Your task to perform on an android device: Open location settings Image 0: 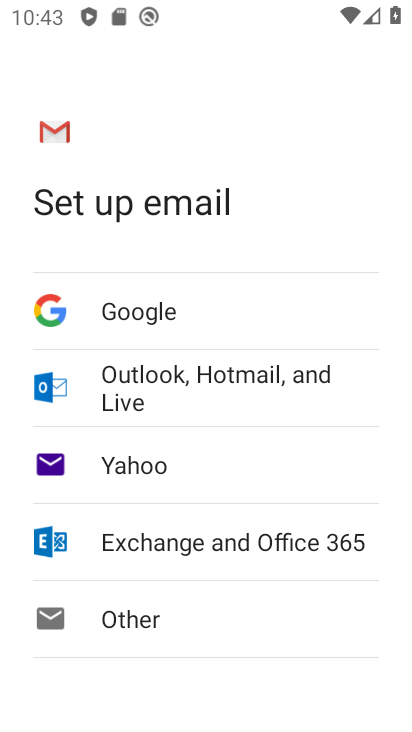
Step 0: press home button
Your task to perform on an android device: Open location settings Image 1: 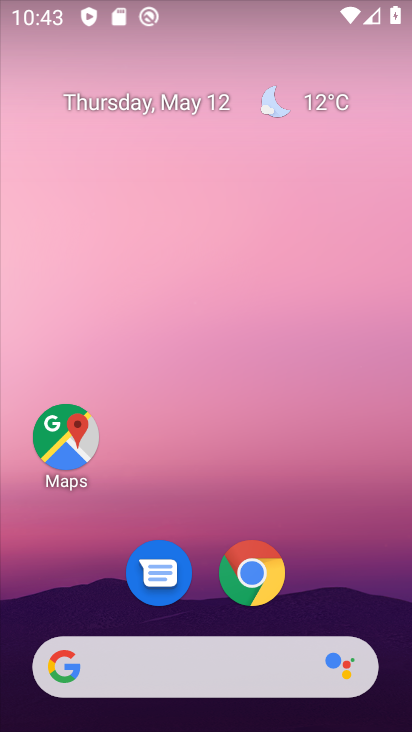
Step 1: drag from (217, 717) to (225, 274)
Your task to perform on an android device: Open location settings Image 2: 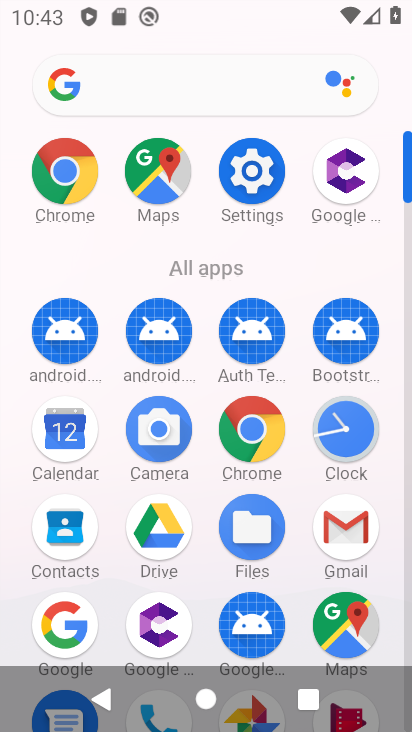
Step 2: click (255, 174)
Your task to perform on an android device: Open location settings Image 3: 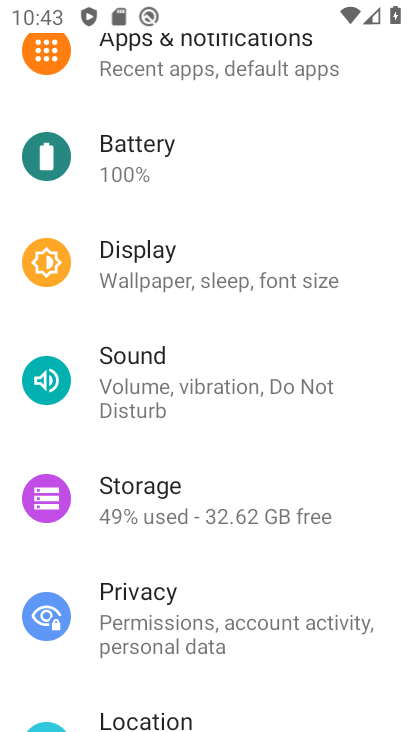
Step 3: drag from (191, 657) to (206, 253)
Your task to perform on an android device: Open location settings Image 4: 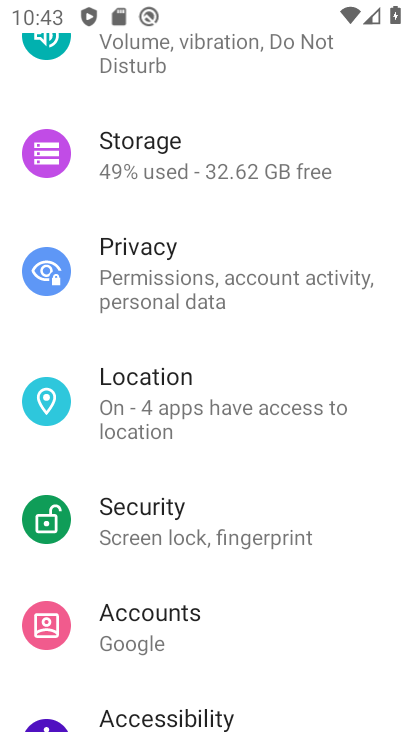
Step 4: click (205, 422)
Your task to perform on an android device: Open location settings Image 5: 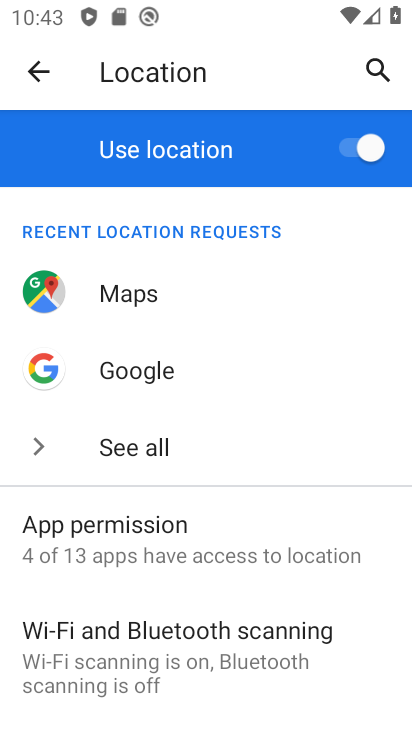
Step 5: task complete